Your task to perform on an android device: toggle pop-ups in chrome Image 0: 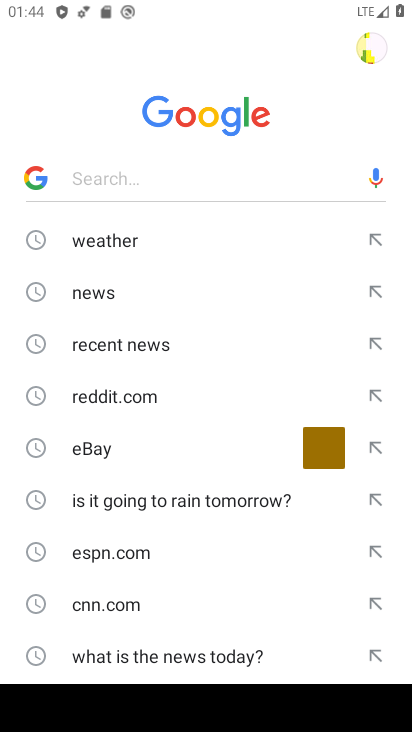
Step 0: press home button
Your task to perform on an android device: toggle pop-ups in chrome Image 1: 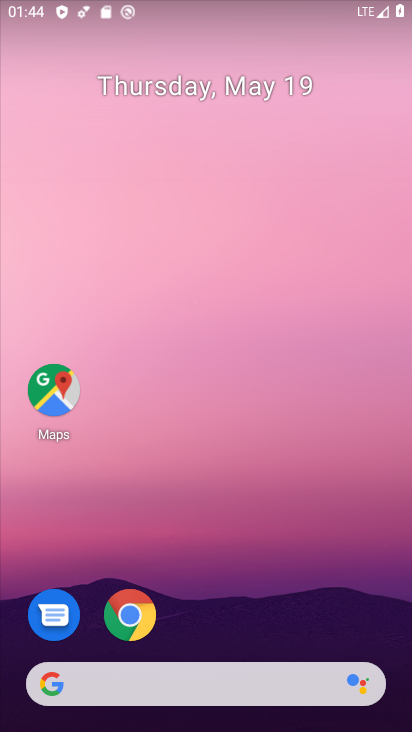
Step 1: drag from (270, 567) to (272, 251)
Your task to perform on an android device: toggle pop-ups in chrome Image 2: 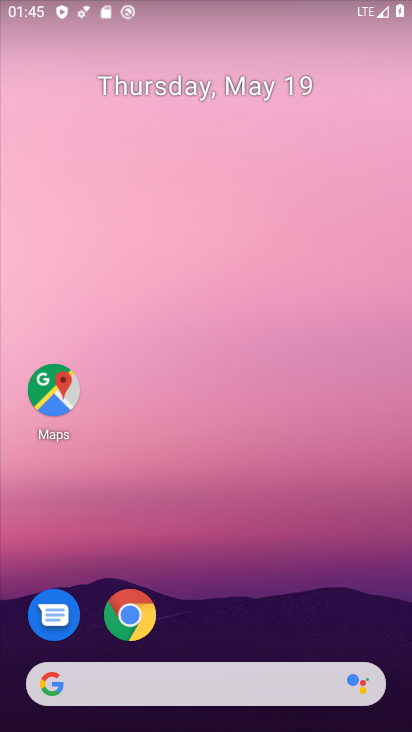
Step 2: drag from (279, 577) to (286, 150)
Your task to perform on an android device: toggle pop-ups in chrome Image 3: 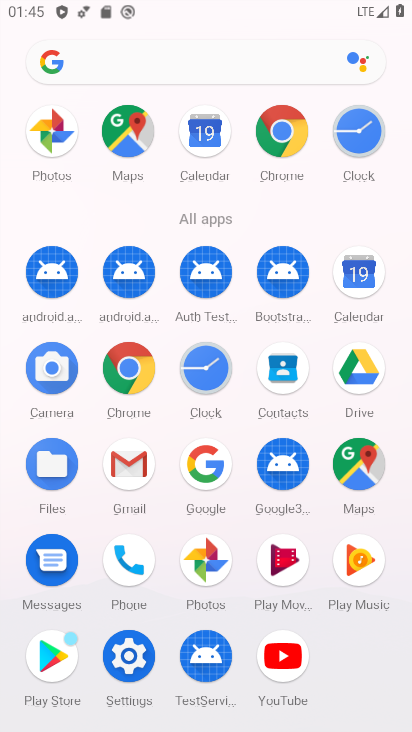
Step 3: click (291, 125)
Your task to perform on an android device: toggle pop-ups in chrome Image 4: 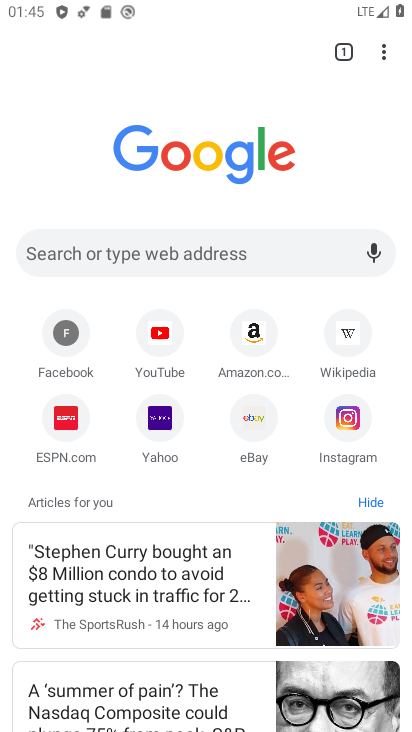
Step 4: click (383, 54)
Your task to perform on an android device: toggle pop-ups in chrome Image 5: 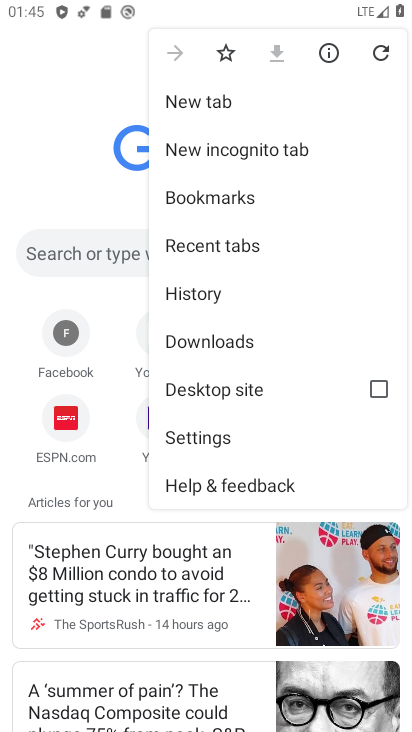
Step 5: click (219, 432)
Your task to perform on an android device: toggle pop-ups in chrome Image 6: 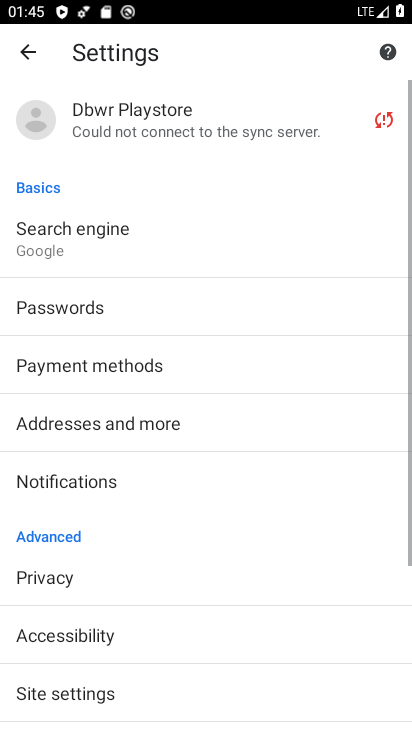
Step 6: drag from (149, 612) to (221, 290)
Your task to perform on an android device: toggle pop-ups in chrome Image 7: 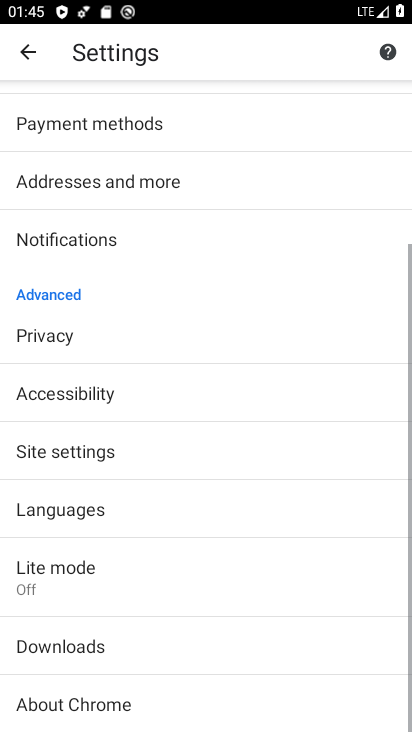
Step 7: click (104, 441)
Your task to perform on an android device: toggle pop-ups in chrome Image 8: 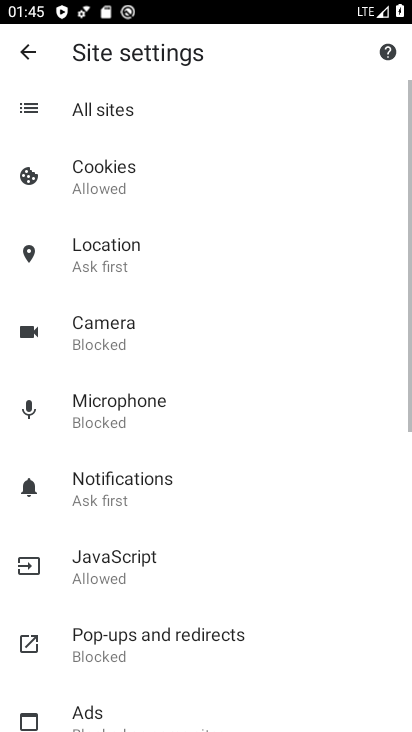
Step 8: click (149, 626)
Your task to perform on an android device: toggle pop-ups in chrome Image 9: 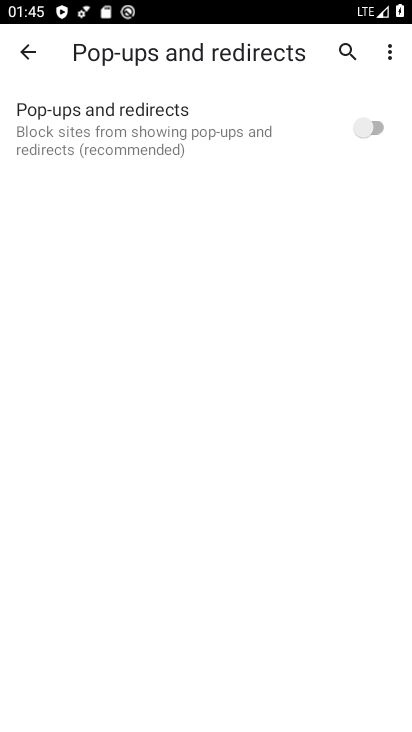
Step 9: click (380, 109)
Your task to perform on an android device: toggle pop-ups in chrome Image 10: 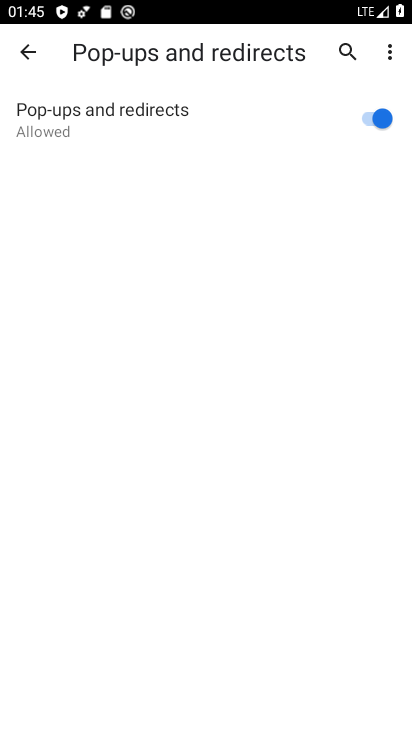
Step 10: task complete